Your task to perform on an android device: toggle translation in the chrome app Image 0: 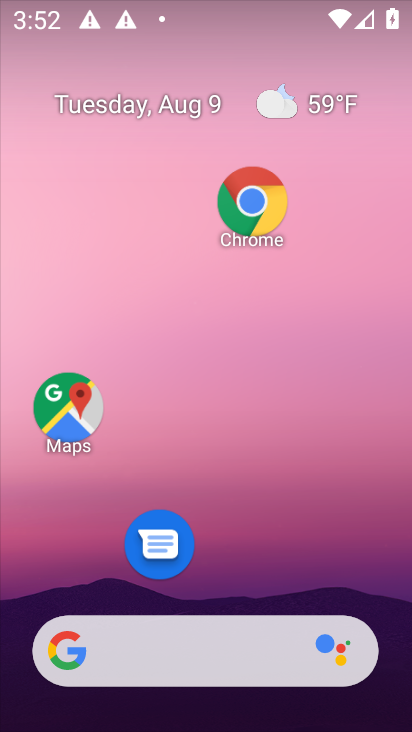
Step 0: click (256, 199)
Your task to perform on an android device: toggle translation in the chrome app Image 1: 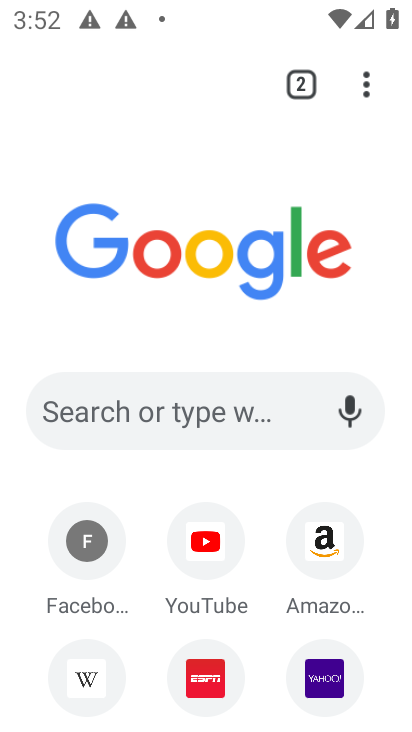
Step 1: click (359, 90)
Your task to perform on an android device: toggle translation in the chrome app Image 2: 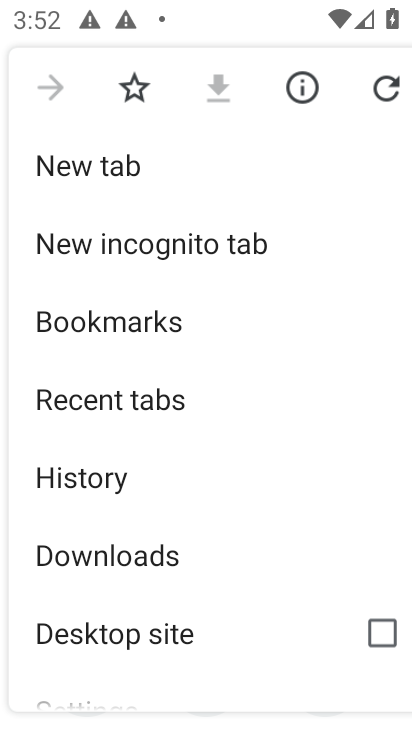
Step 2: drag from (100, 644) to (193, 217)
Your task to perform on an android device: toggle translation in the chrome app Image 3: 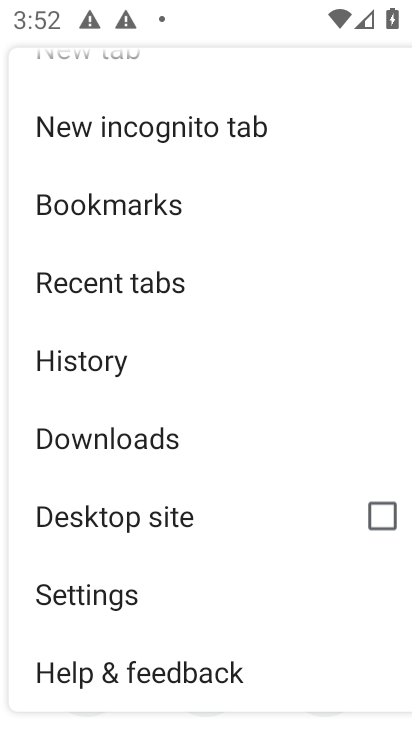
Step 3: click (115, 587)
Your task to perform on an android device: toggle translation in the chrome app Image 4: 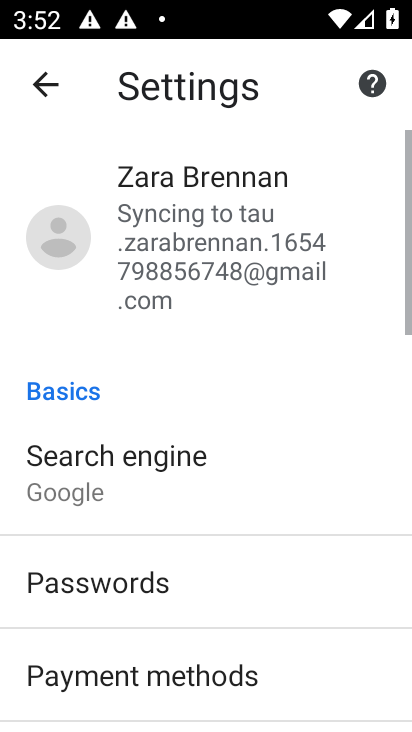
Step 4: drag from (163, 579) to (244, 204)
Your task to perform on an android device: toggle translation in the chrome app Image 5: 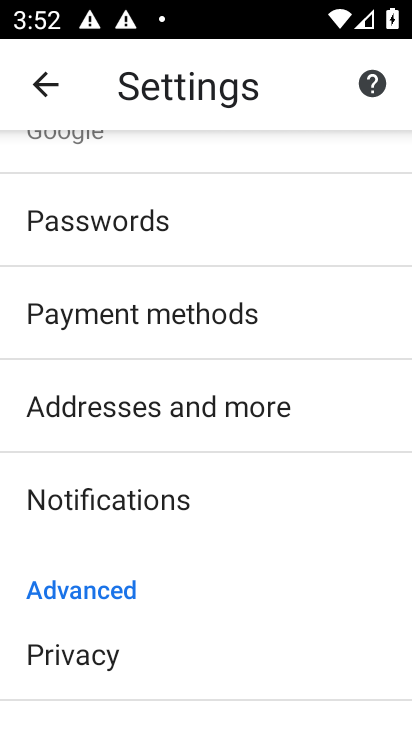
Step 5: drag from (110, 608) to (113, 348)
Your task to perform on an android device: toggle translation in the chrome app Image 6: 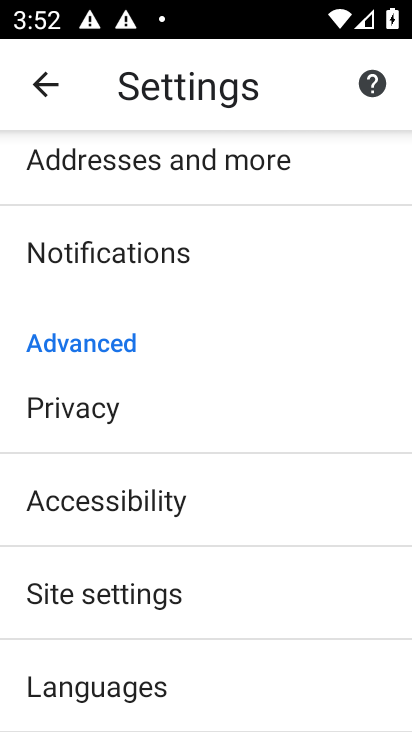
Step 6: click (115, 695)
Your task to perform on an android device: toggle translation in the chrome app Image 7: 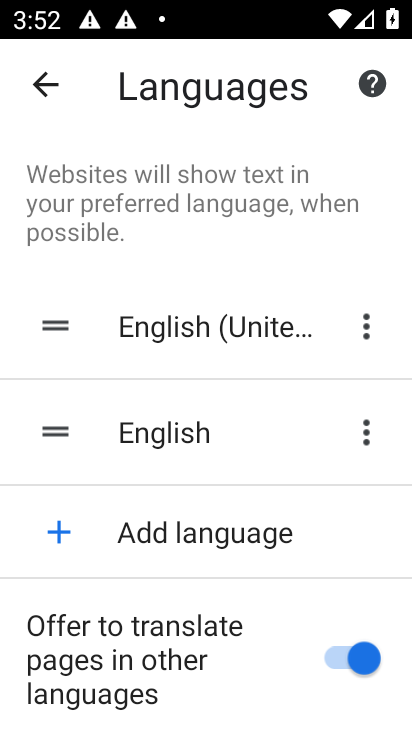
Step 7: click (332, 654)
Your task to perform on an android device: toggle translation in the chrome app Image 8: 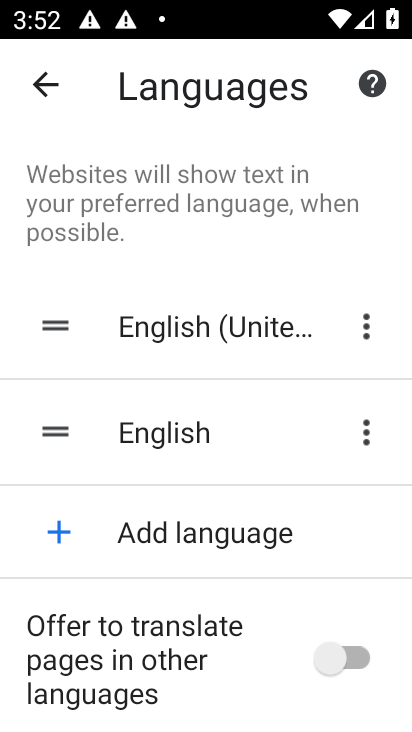
Step 8: task complete